Your task to perform on an android device: turn off translation in the chrome app Image 0: 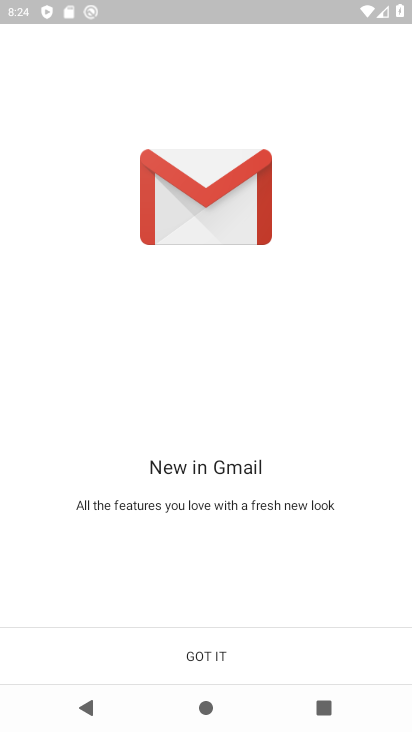
Step 0: press home button
Your task to perform on an android device: turn off translation in the chrome app Image 1: 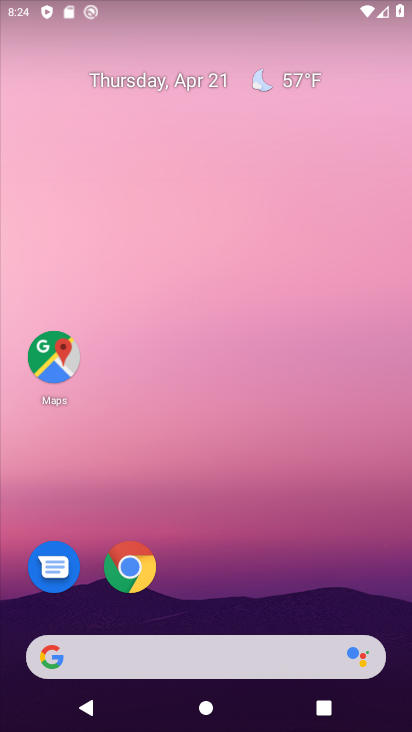
Step 1: drag from (178, 618) to (310, 36)
Your task to perform on an android device: turn off translation in the chrome app Image 2: 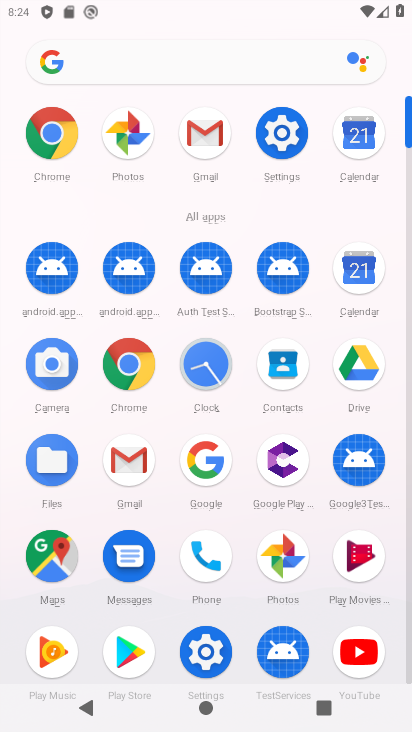
Step 2: click (128, 370)
Your task to perform on an android device: turn off translation in the chrome app Image 3: 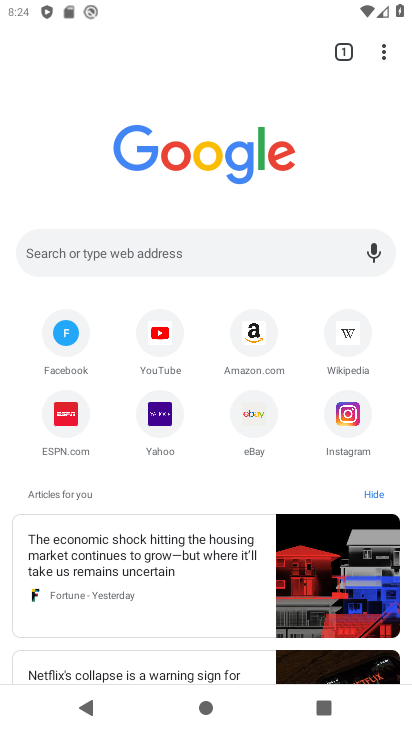
Step 3: drag from (381, 53) to (192, 432)
Your task to perform on an android device: turn off translation in the chrome app Image 4: 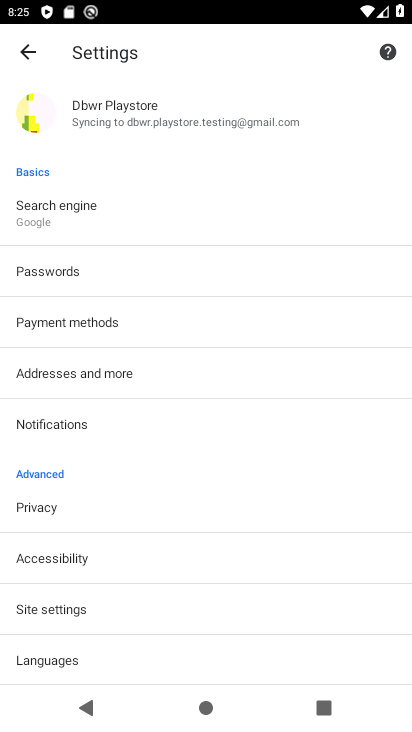
Step 4: click (62, 667)
Your task to perform on an android device: turn off translation in the chrome app Image 5: 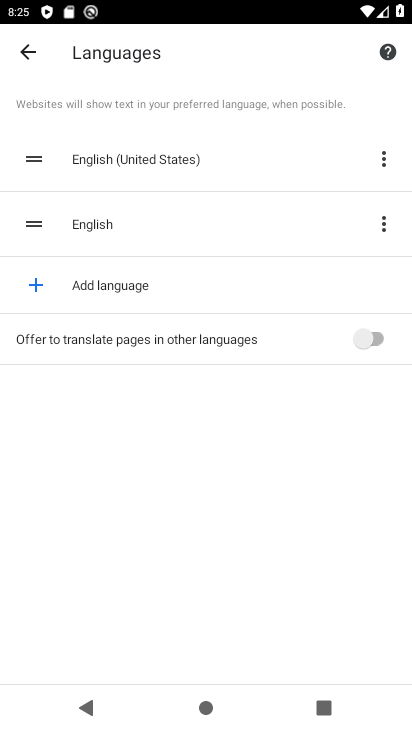
Step 5: task complete